Your task to perform on an android device: toggle airplane mode Image 0: 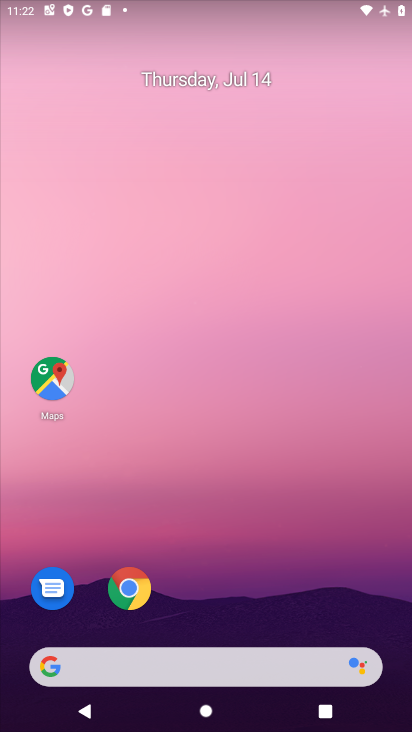
Step 0: press home button
Your task to perform on an android device: toggle airplane mode Image 1: 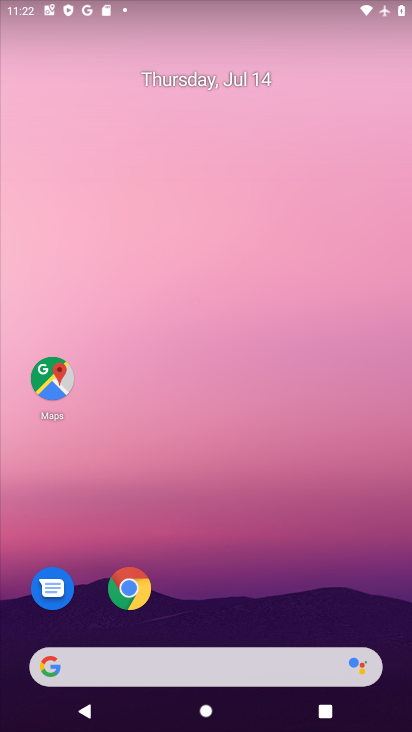
Step 1: drag from (158, 664) to (264, 253)
Your task to perform on an android device: toggle airplane mode Image 2: 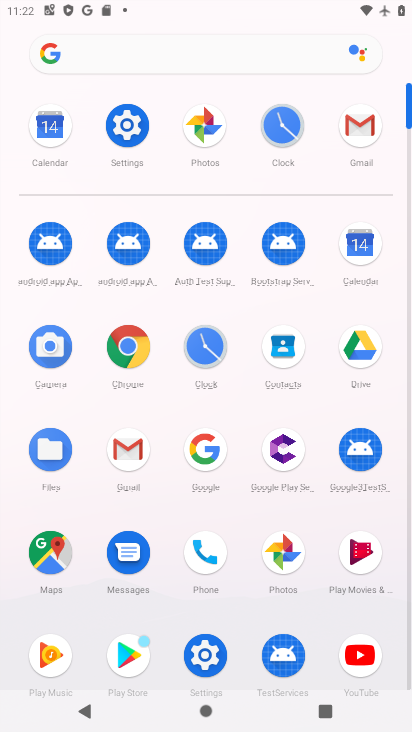
Step 2: click (128, 118)
Your task to perform on an android device: toggle airplane mode Image 3: 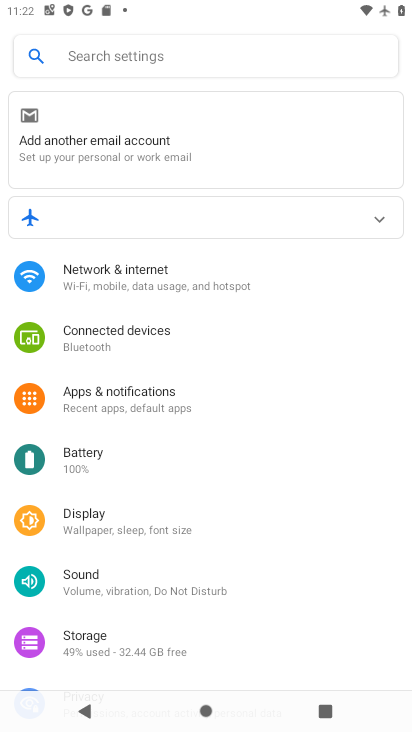
Step 3: click (156, 280)
Your task to perform on an android device: toggle airplane mode Image 4: 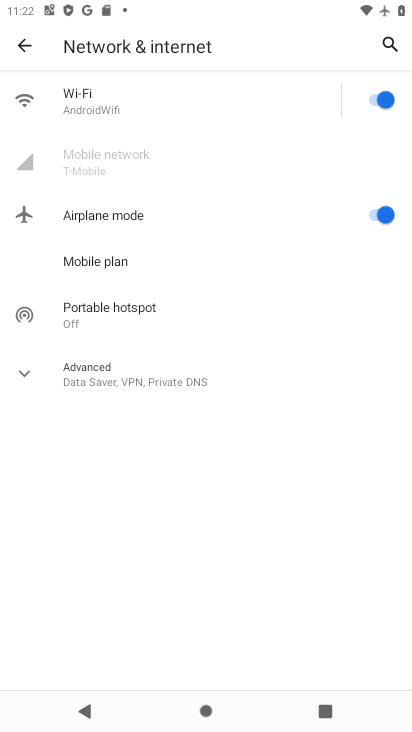
Step 4: click (375, 215)
Your task to perform on an android device: toggle airplane mode Image 5: 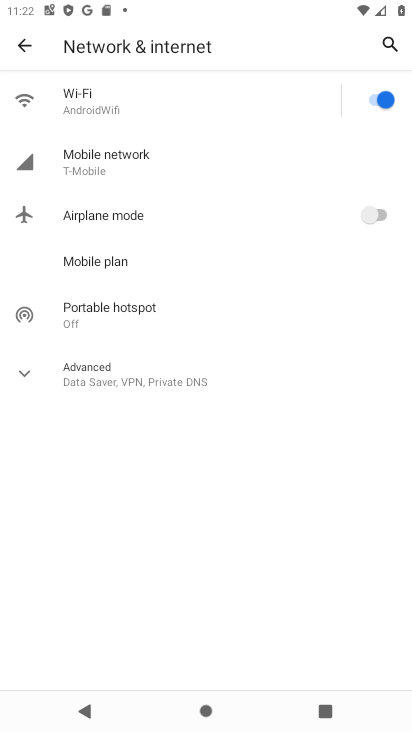
Step 5: task complete